Your task to perform on an android device: Show me popular games on the Play Store Image 0: 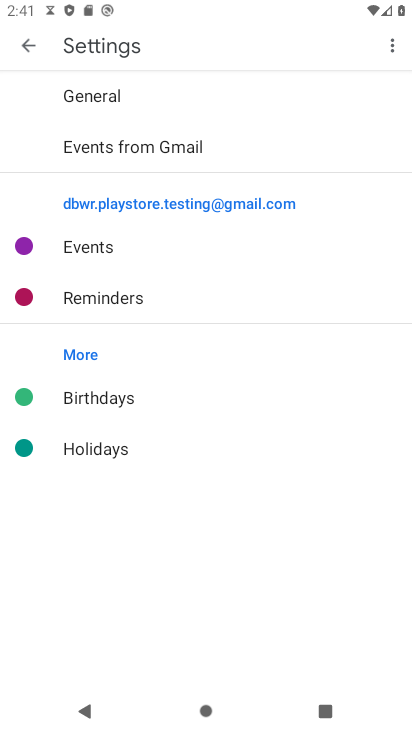
Step 0: press home button
Your task to perform on an android device: Show me popular games on the Play Store Image 1: 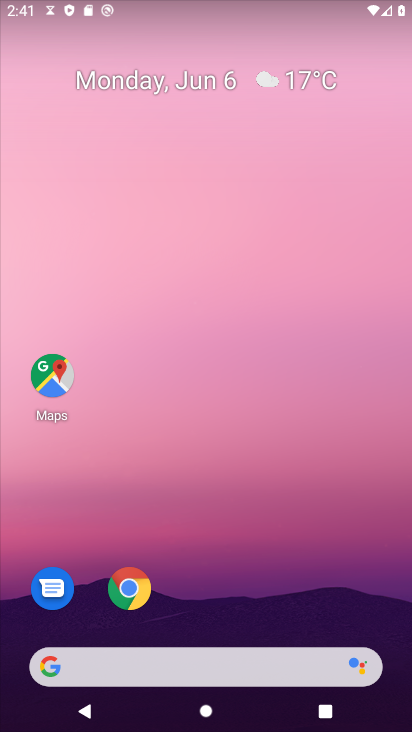
Step 1: drag from (193, 596) to (225, 301)
Your task to perform on an android device: Show me popular games on the Play Store Image 2: 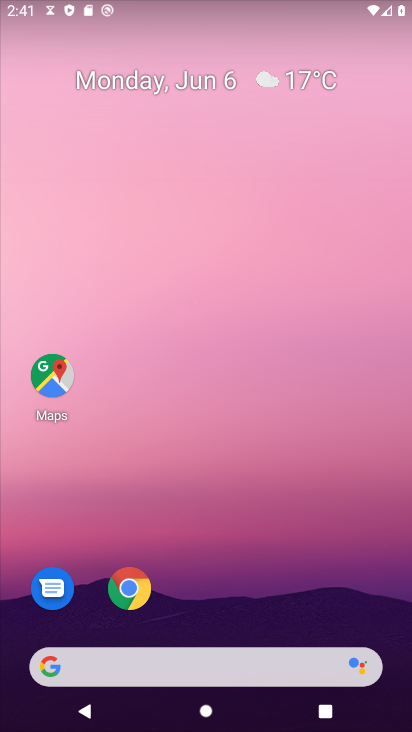
Step 2: drag from (239, 684) to (255, 327)
Your task to perform on an android device: Show me popular games on the Play Store Image 3: 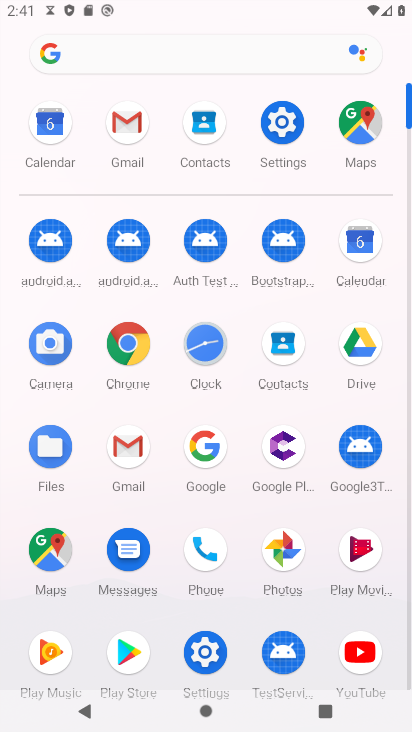
Step 3: click (118, 669)
Your task to perform on an android device: Show me popular games on the Play Store Image 4: 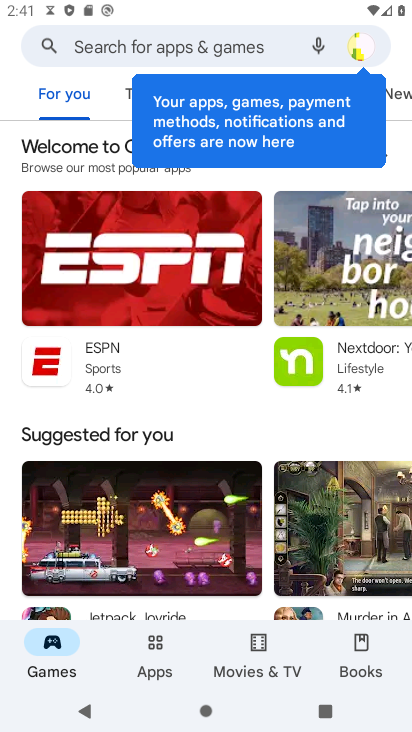
Step 4: drag from (216, 442) to (249, 193)
Your task to perform on an android device: Show me popular games on the Play Store Image 5: 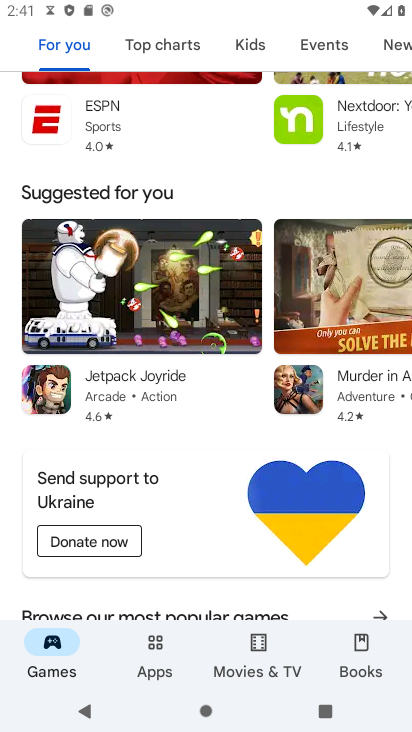
Step 5: drag from (206, 429) to (281, 55)
Your task to perform on an android device: Show me popular games on the Play Store Image 6: 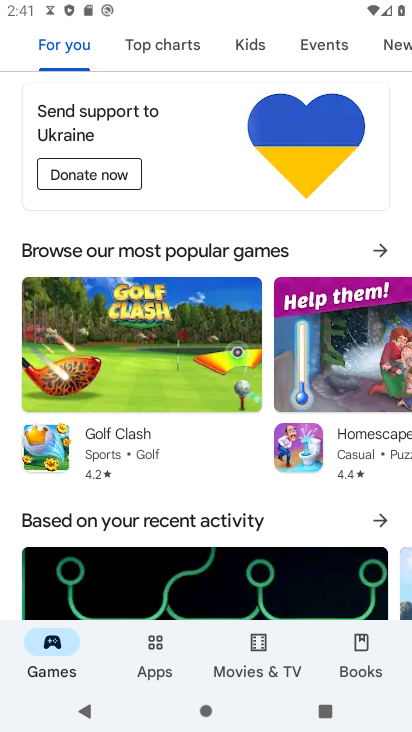
Step 6: click (377, 247)
Your task to perform on an android device: Show me popular games on the Play Store Image 7: 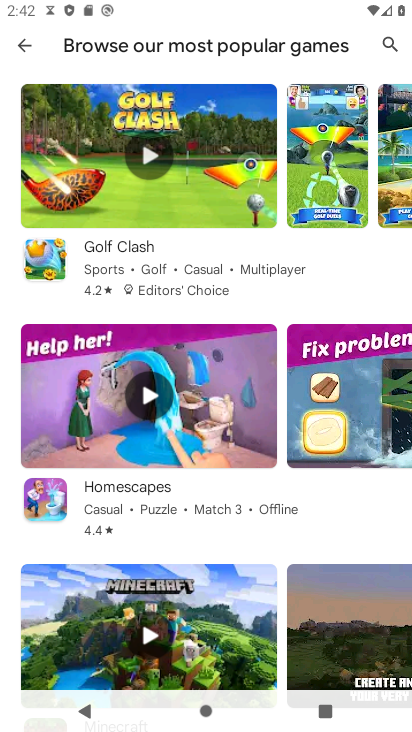
Step 7: task complete